Your task to perform on an android device: Set the phone to "Do not disturb". Image 0: 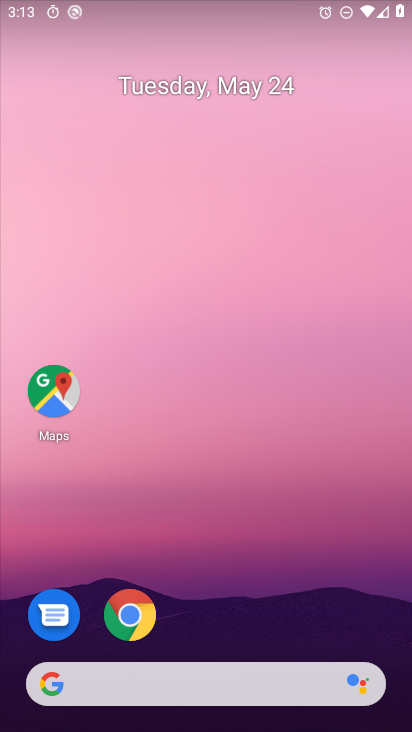
Step 0: drag from (145, 657) to (171, 271)
Your task to perform on an android device: Set the phone to "Do not disturb". Image 1: 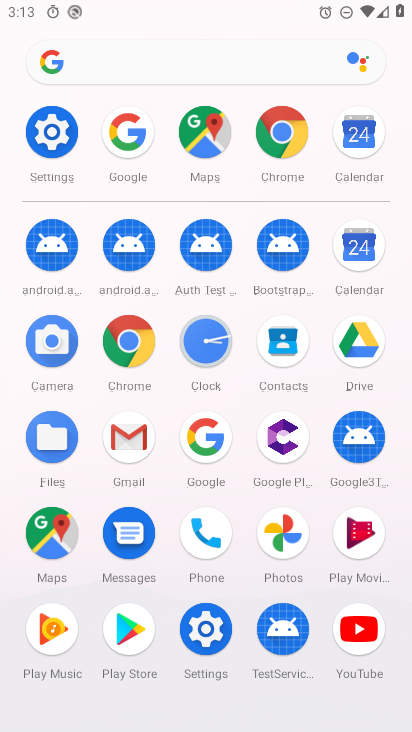
Step 1: click (55, 134)
Your task to perform on an android device: Set the phone to "Do not disturb". Image 2: 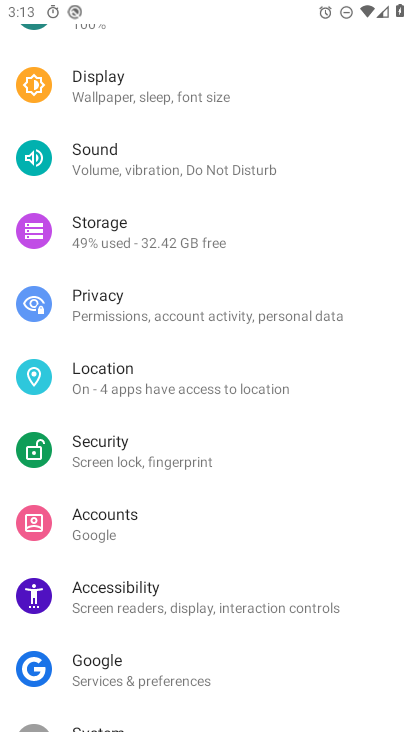
Step 2: drag from (144, 726) to (138, 350)
Your task to perform on an android device: Set the phone to "Do not disturb". Image 3: 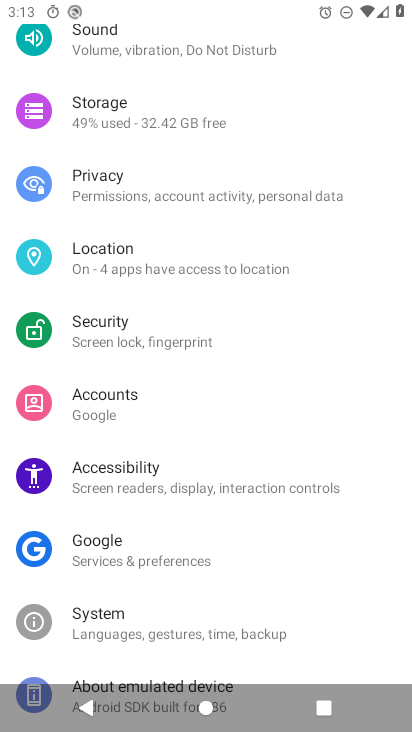
Step 3: drag from (156, 652) to (155, 297)
Your task to perform on an android device: Set the phone to "Do not disturb". Image 4: 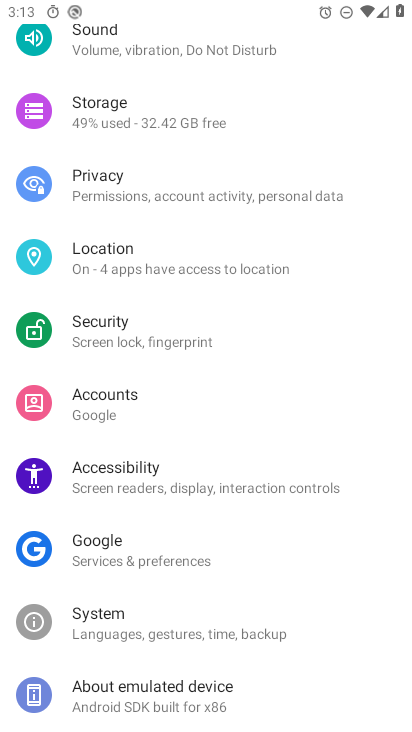
Step 4: click (210, 50)
Your task to perform on an android device: Set the phone to "Do not disturb". Image 5: 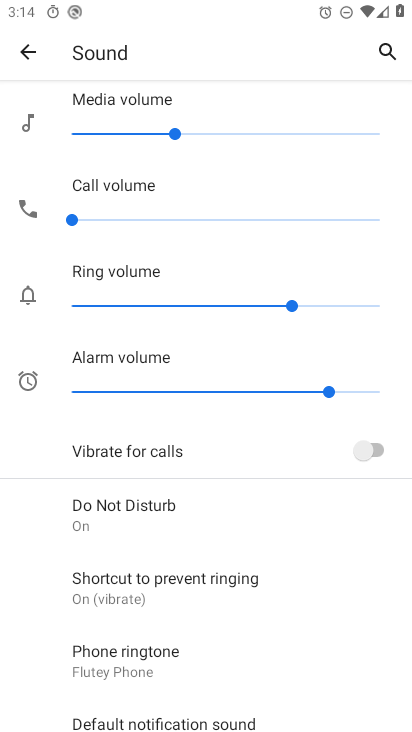
Step 5: drag from (166, 717) to (158, 330)
Your task to perform on an android device: Set the phone to "Do not disturb". Image 6: 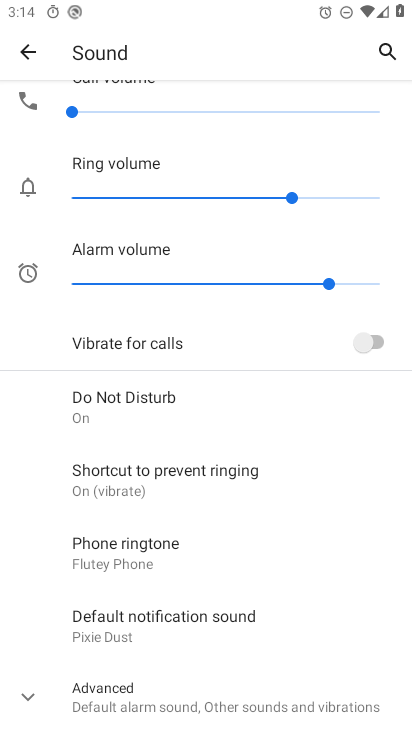
Step 6: click (140, 419)
Your task to perform on an android device: Set the phone to "Do not disturb". Image 7: 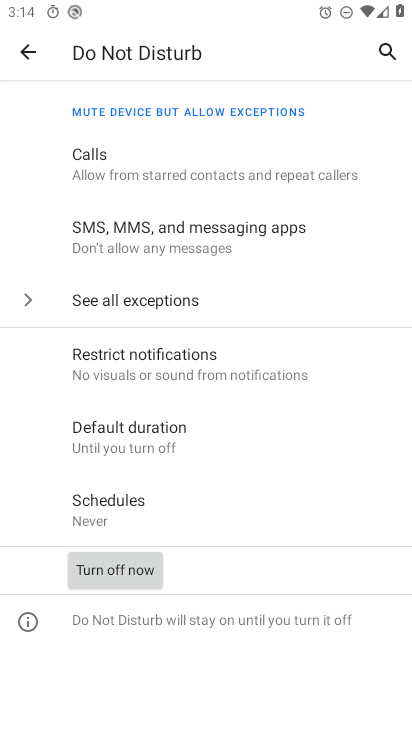
Step 7: task complete